Your task to perform on an android device: Find coffee shops on Maps Image 0: 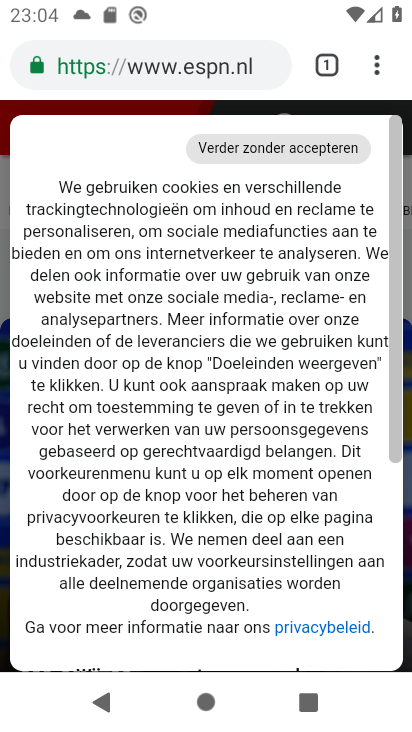
Step 0: press home button
Your task to perform on an android device: Find coffee shops on Maps Image 1: 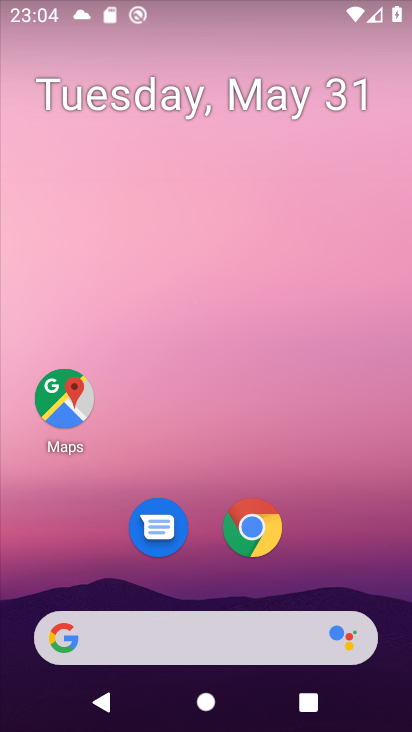
Step 1: click (74, 397)
Your task to perform on an android device: Find coffee shops on Maps Image 2: 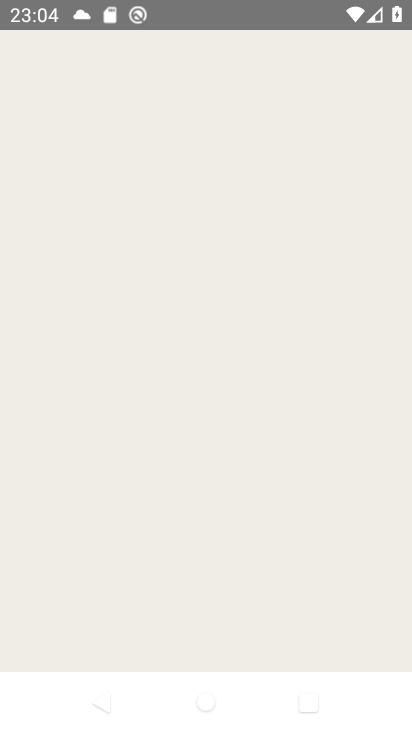
Step 2: click (61, 382)
Your task to perform on an android device: Find coffee shops on Maps Image 3: 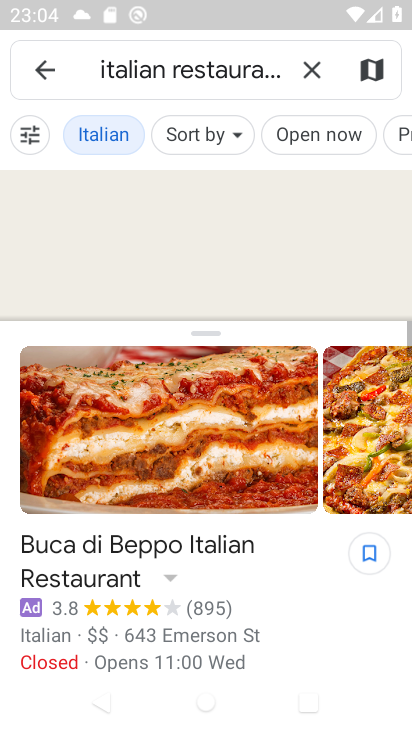
Step 3: click (321, 66)
Your task to perform on an android device: Find coffee shops on Maps Image 4: 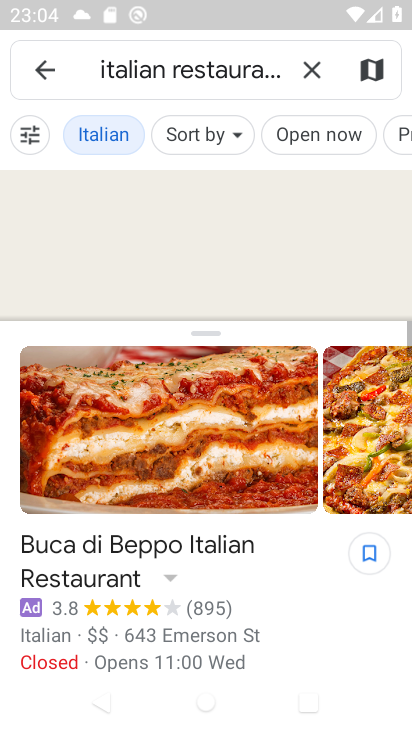
Step 4: click (169, 65)
Your task to perform on an android device: Find coffee shops on Maps Image 5: 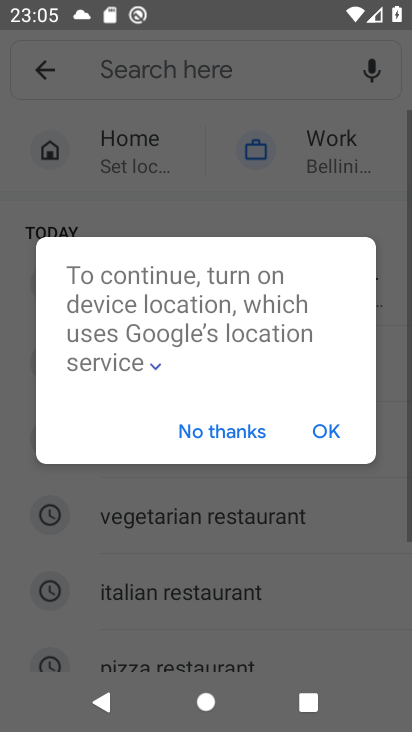
Step 5: click (214, 434)
Your task to perform on an android device: Find coffee shops on Maps Image 6: 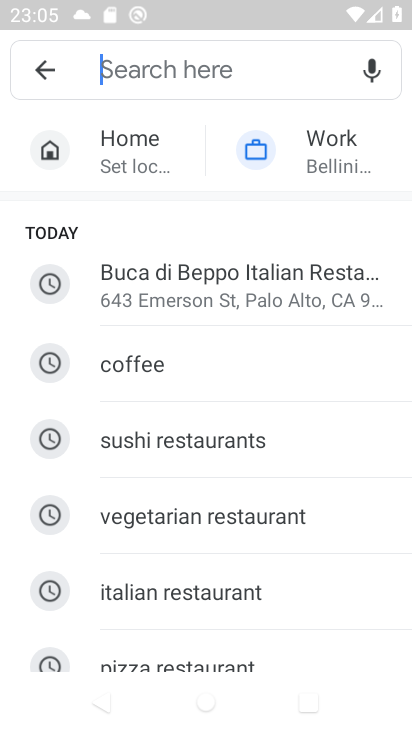
Step 6: click (197, 69)
Your task to perform on an android device: Find coffee shops on Maps Image 7: 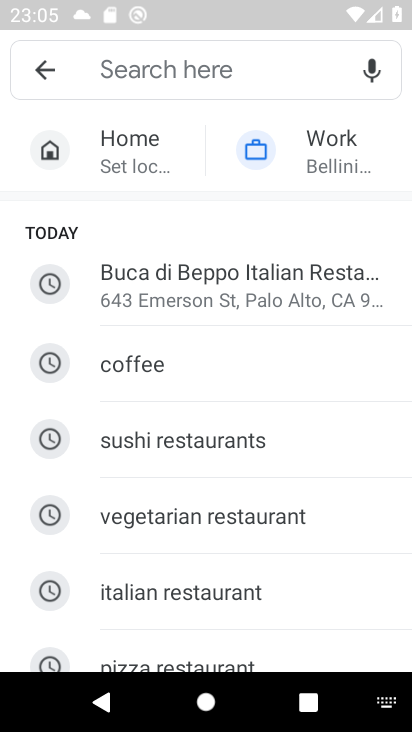
Step 7: type "coffee shops"
Your task to perform on an android device: Find coffee shops on Maps Image 8: 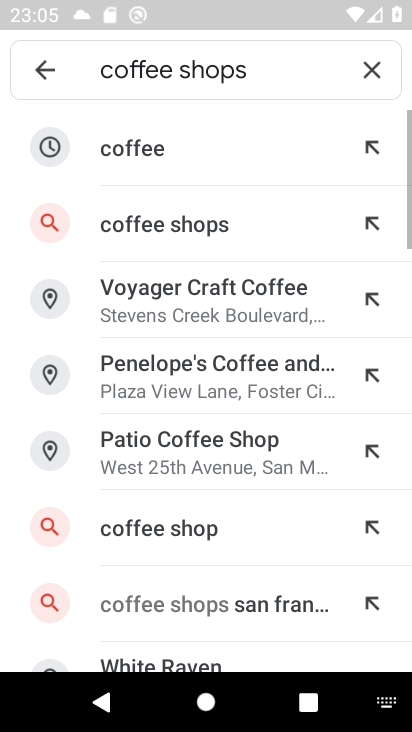
Step 8: click (237, 212)
Your task to perform on an android device: Find coffee shops on Maps Image 9: 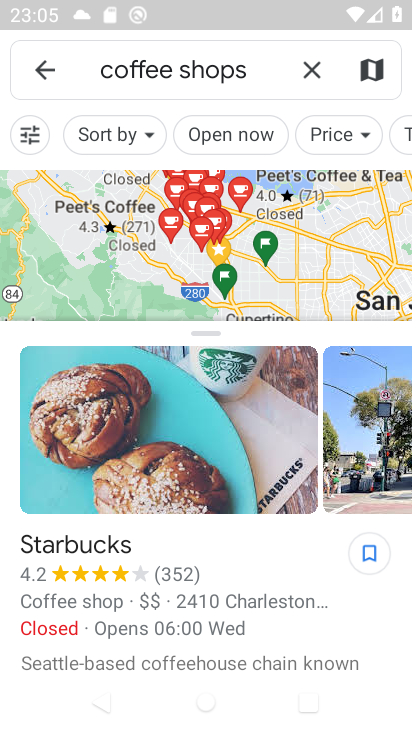
Step 9: task complete